Your task to perform on an android device: check data usage Image 0: 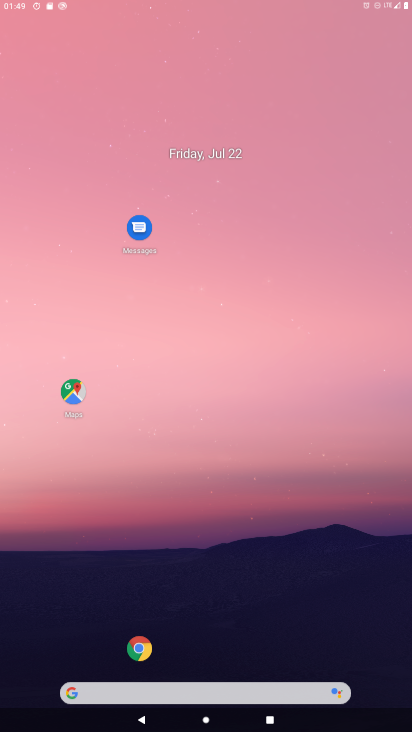
Step 0: click (184, 123)
Your task to perform on an android device: check data usage Image 1: 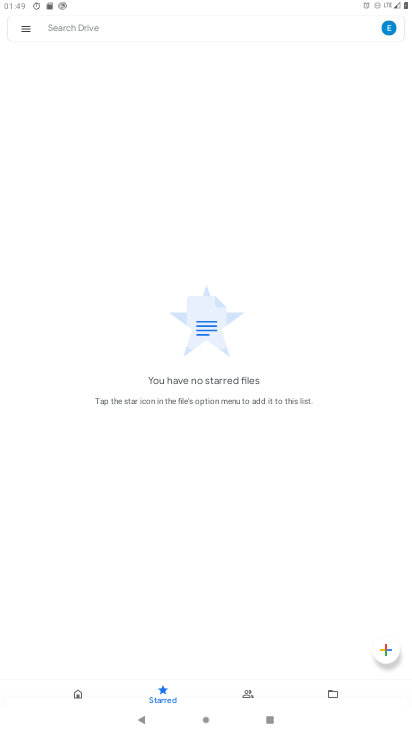
Step 1: press home button
Your task to perform on an android device: check data usage Image 2: 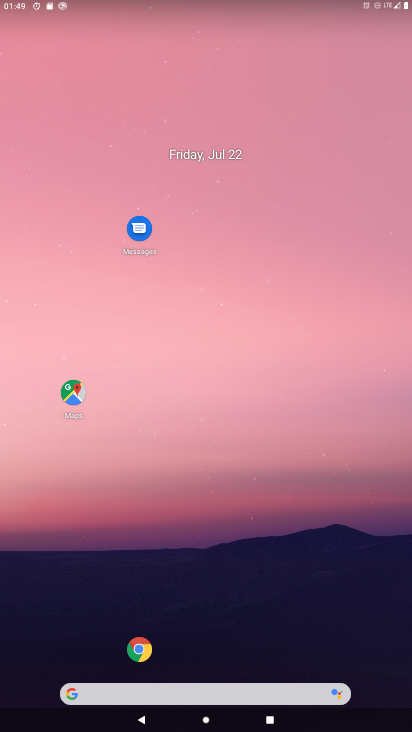
Step 2: drag from (75, 448) to (155, 81)
Your task to perform on an android device: check data usage Image 3: 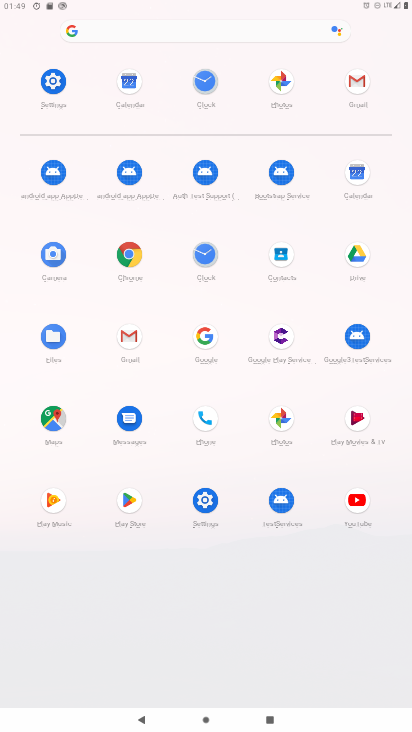
Step 3: click (208, 513)
Your task to perform on an android device: check data usage Image 4: 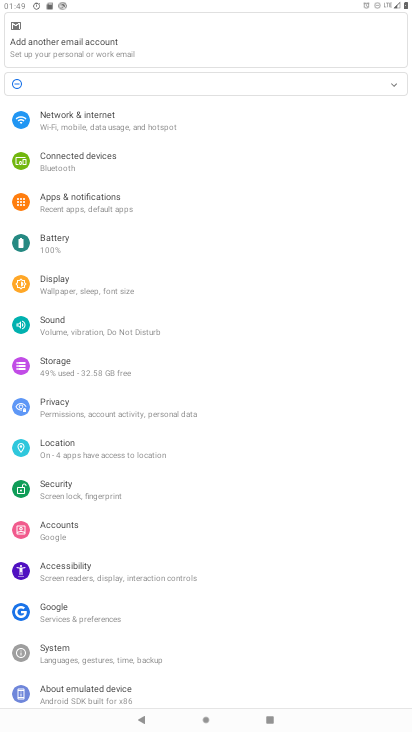
Step 4: click (111, 127)
Your task to perform on an android device: check data usage Image 5: 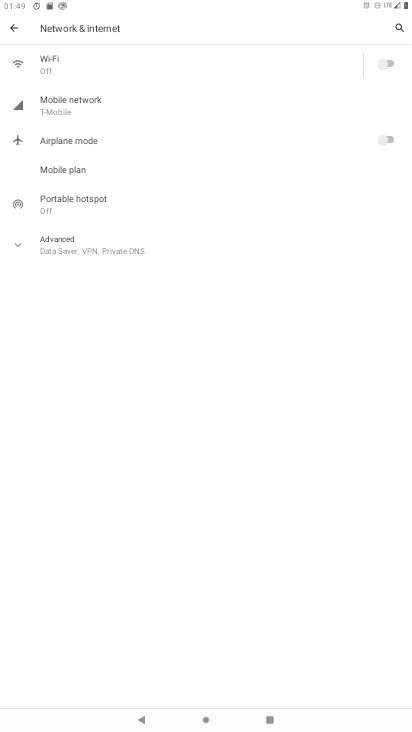
Step 5: click (88, 110)
Your task to perform on an android device: check data usage Image 6: 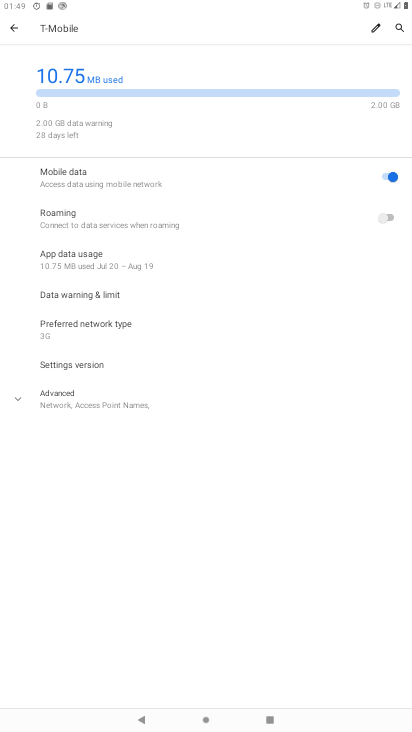
Step 6: task complete